Your task to perform on an android device: see tabs open on other devices in the chrome app Image 0: 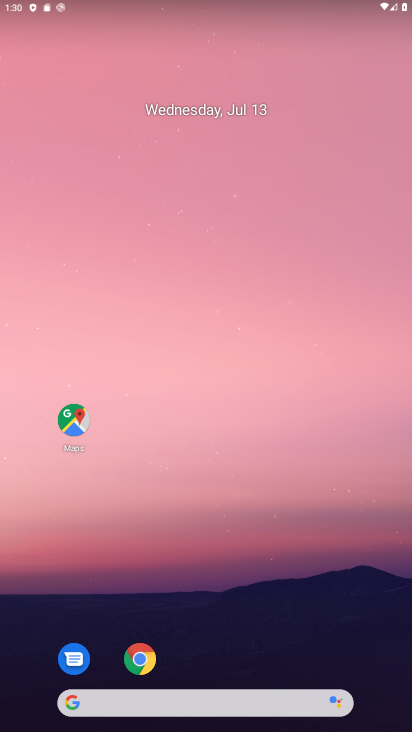
Step 0: click (141, 660)
Your task to perform on an android device: see tabs open on other devices in the chrome app Image 1: 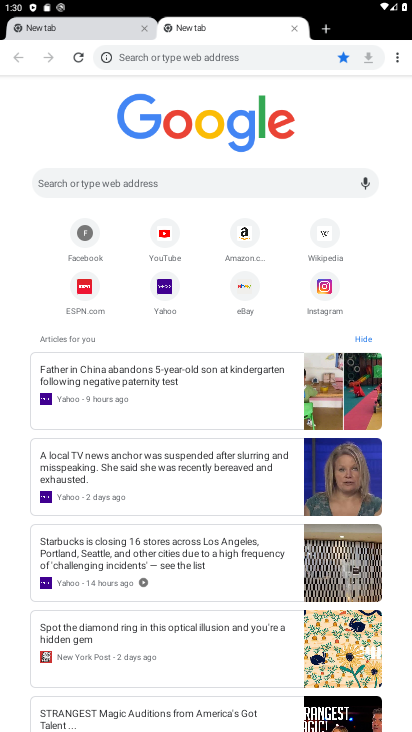
Step 1: click (392, 59)
Your task to perform on an android device: see tabs open on other devices in the chrome app Image 2: 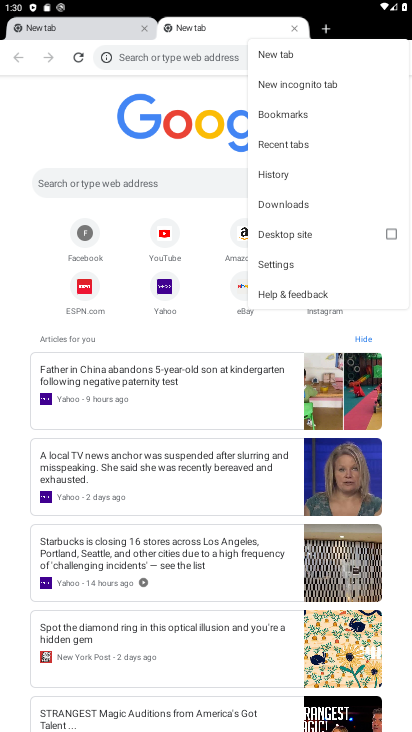
Step 2: click (281, 141)
Your task to perform on an android device: see tabs open on other devices in the chrome app Image 3: 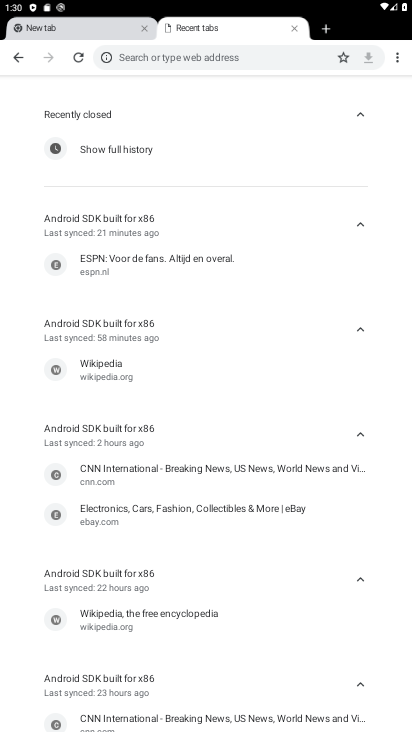
Step 3: task complete